Your task to perform on an android device: turn off airplane mode Image 0: 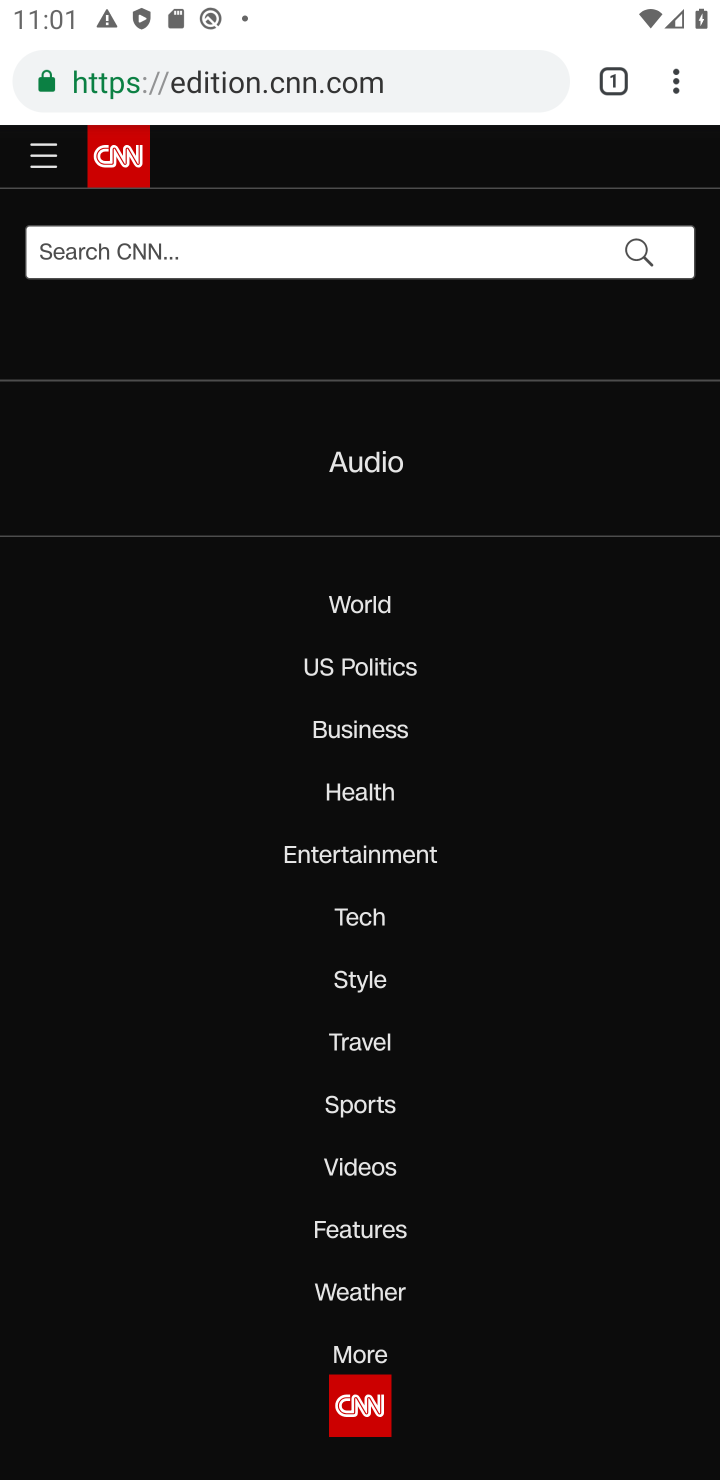
Step 0: press home button
Your task to perform on an android device: turn off airplane mode Image 1: 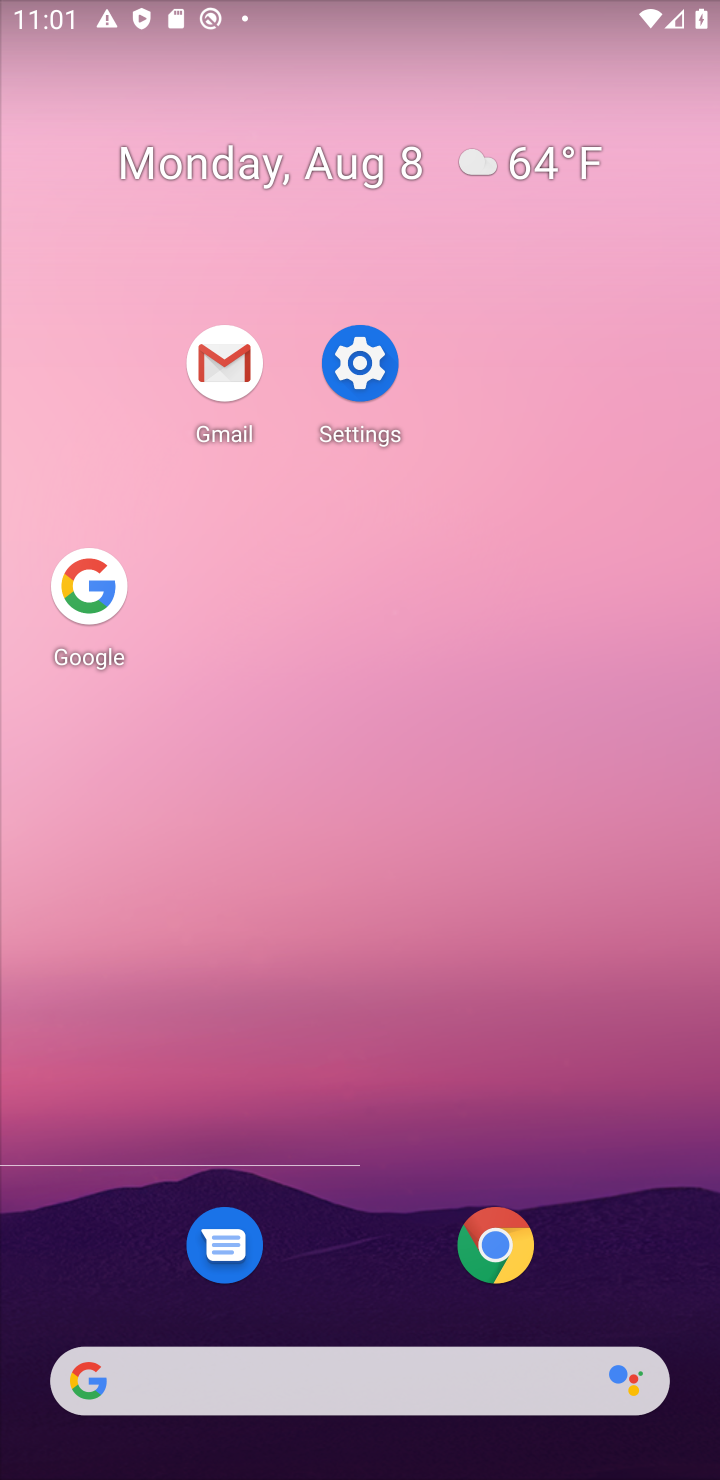
Step 1: click (389, 374)
Your task to perform on an android device: turn off airplane mode Image 2: 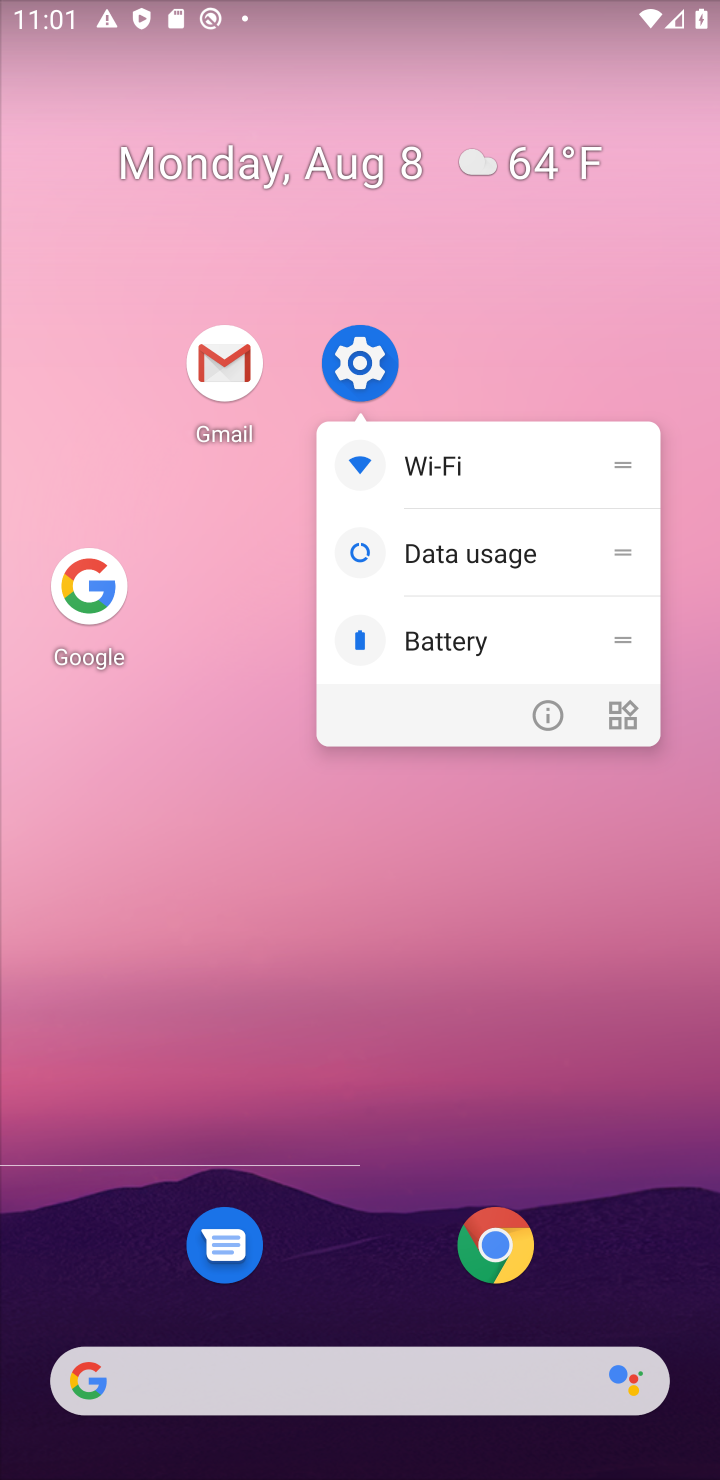
Step 2: click (384, 323)
Your task to perform on an android device: turn off airplane mode Image 3: 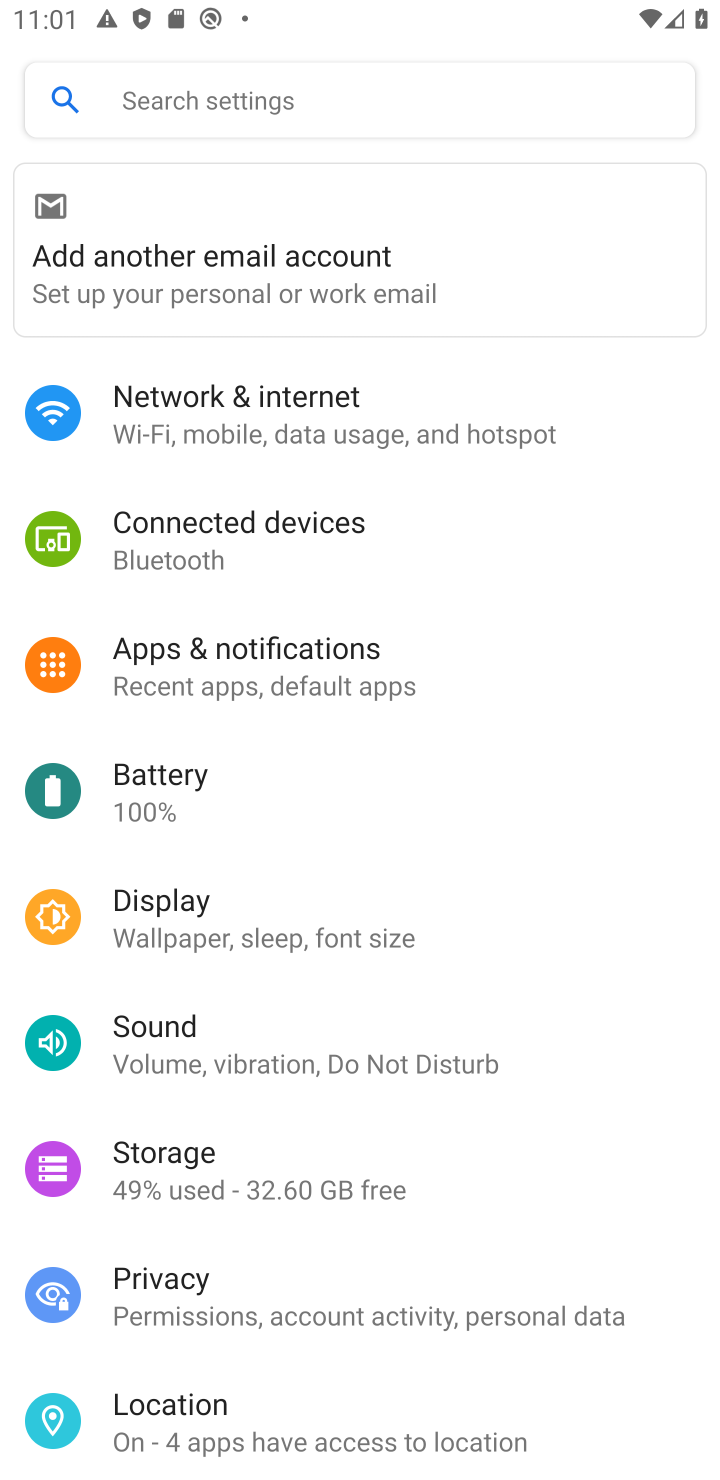
Step 3: click (352, 413)
Your task to perform on an android device: turn off airplane mode Image 4: 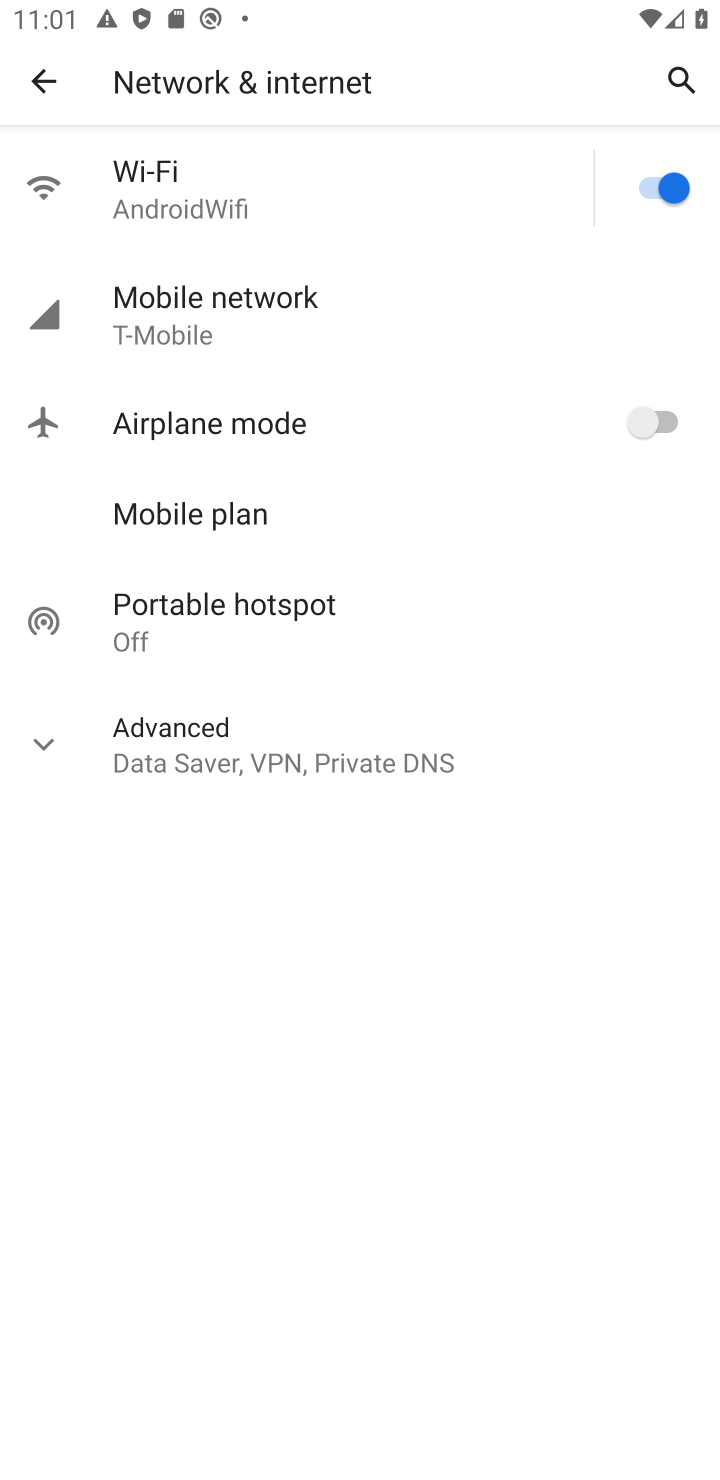
Step 4: task complete